Your task to perform on an android device: Open Google Maps and go to "Timeline" Image 0: 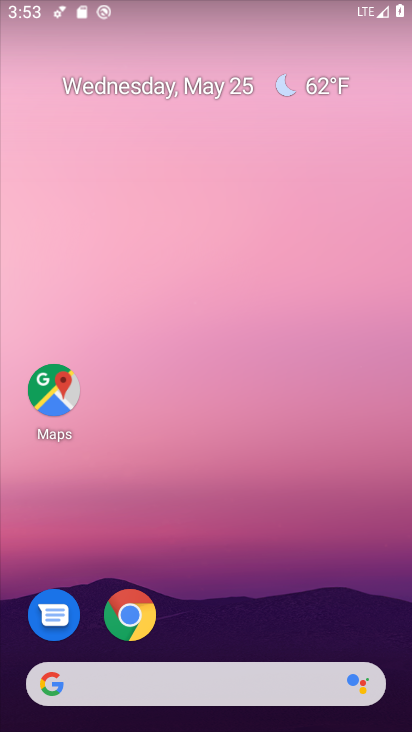
Step 0: click (55, 386)
Your task to perform on an android device: Open Google Maps and go to "Timeline" Image 1: 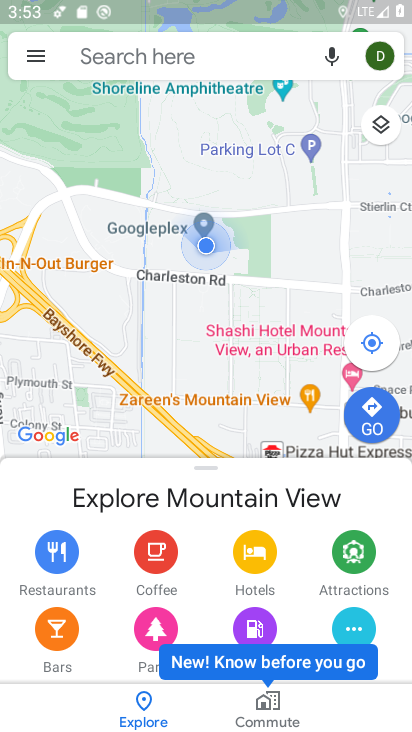
Step 1: click (29, 52)
Your task to perform on an android device: Open Google Maps and go to "Timeline" Image 2: 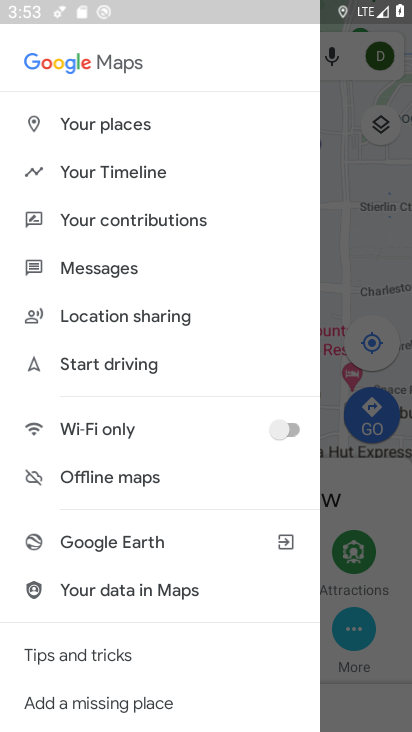
Step 2: click (144, 164)
Your task to perform on an android device: Open Google Maps and go to "Timeline" Image 3: 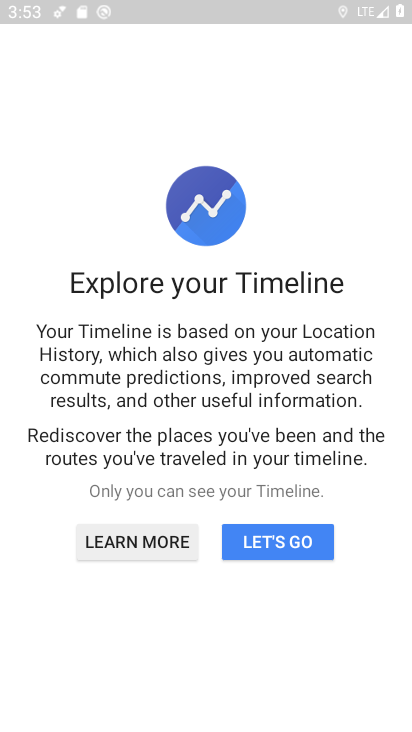
Step 3: click (302, 539)
Your task to perform on an android device: Open Google Maps and go to "Timeline" Image 4: 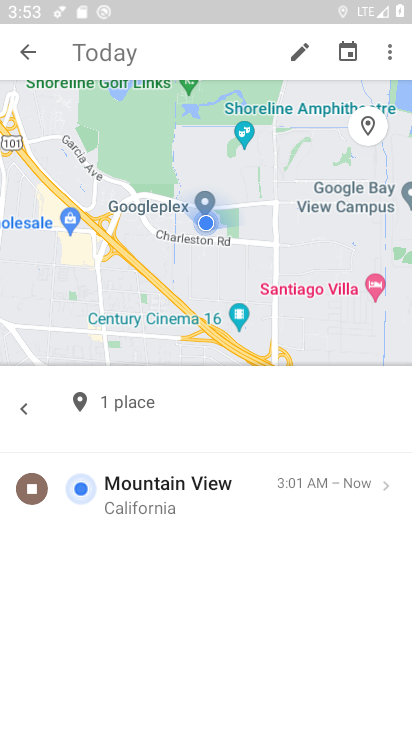
Step 4: task complete